Your task to perform on an android device: Open calendar and show me the second week of next month Image 0: 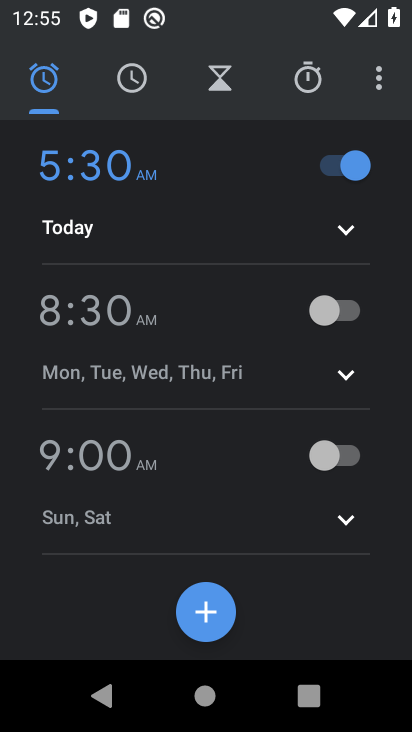
Step 0: press home button
Your task to perform on an android device: Open calendar and show me the second week of next month Image 1: 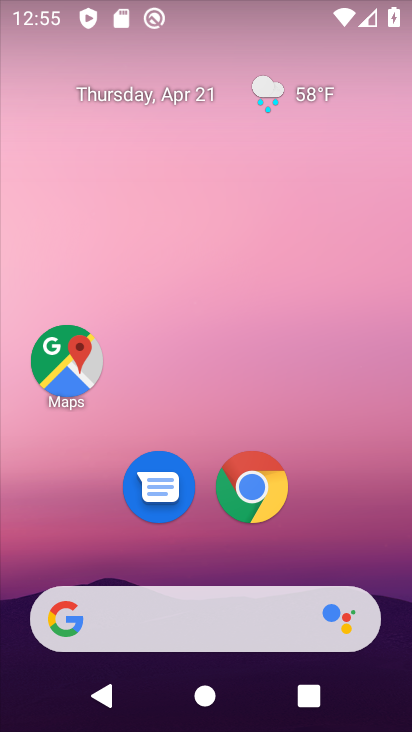
Step 1: drag from (398, 553) to (363, 16)
Your task to perform on an android device: Open calendar and show me the second week of next month Image 2: 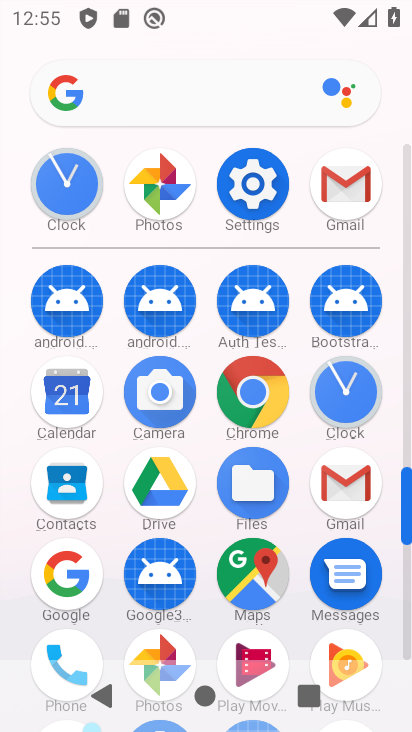
Step 2: click (64, 406)
Your task to perform on an android device: Open calendar and show me the second week of next month Image 3: 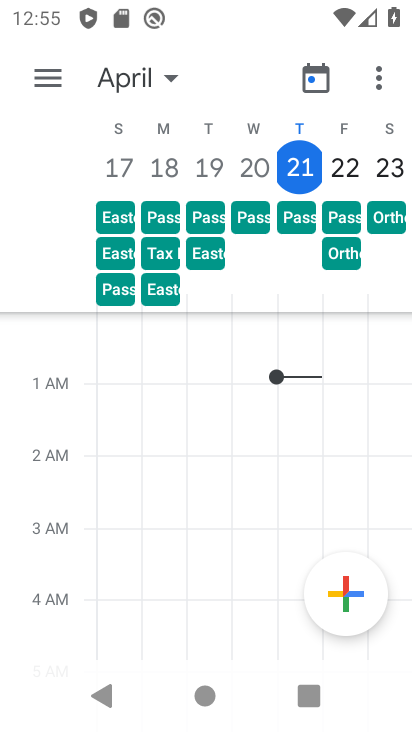
Step 3: click (167, 77)
Your task to perform on an android device: Open calendar and show me the second week of next month Image 4: 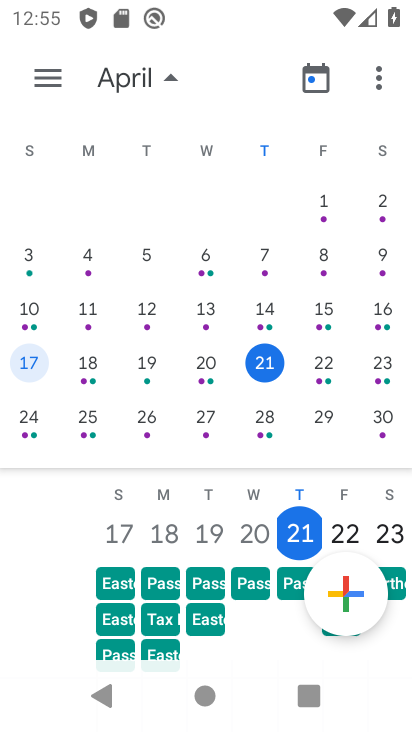
Step 4: task complete